Your task to perform on an android device: turn off airplane mode Image 0: 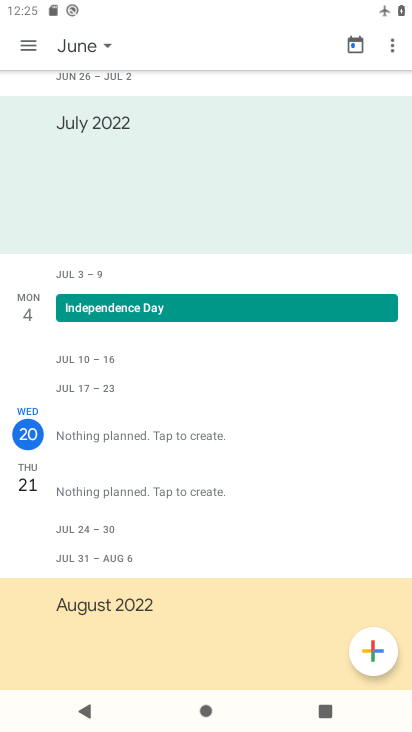
Step 0: press home button
Your task to perform on an android device: turn off airplane mode Image 1: 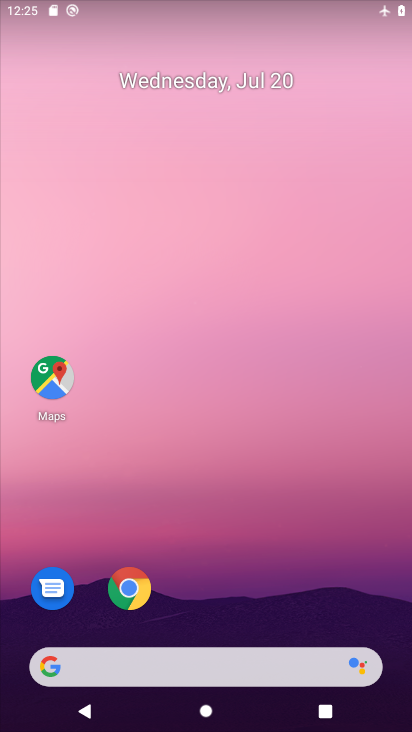
Step 1: drag from (207, 594) to (207, 326)
Your task to perform on an android device: turn off airplane mode Image 2: 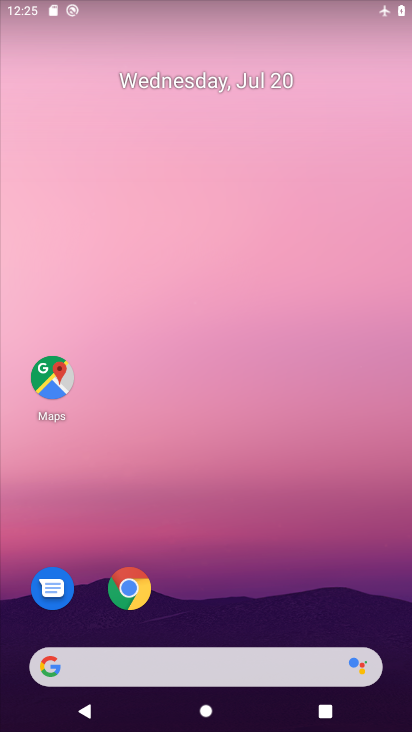
Step 2: drag from (203, 581) to (211, 300)
Your task to perform on an android device: turn off airplane mode Image 3: 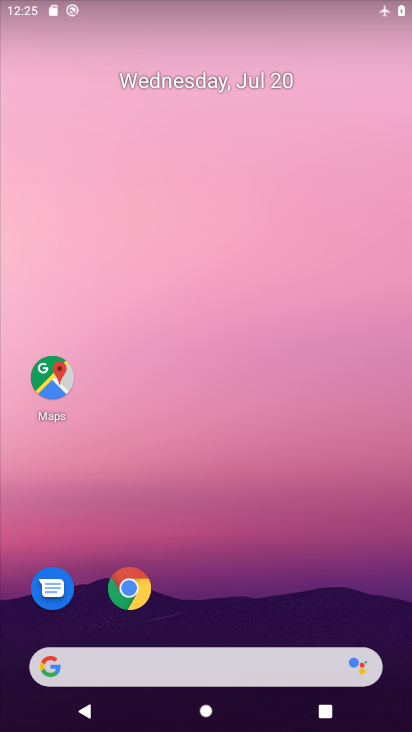
Step 3: drag from (208, 574) to (208, 288)
Your task to perform on an android device: turn off airplane mode Image 4: 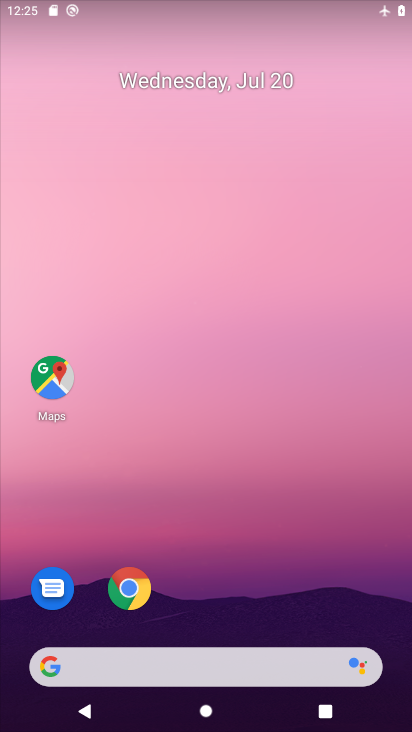
Step 4: drag from (248, 596) to (222, 157)
Your task to perform on an android device: turn off airplane mode Image 5: 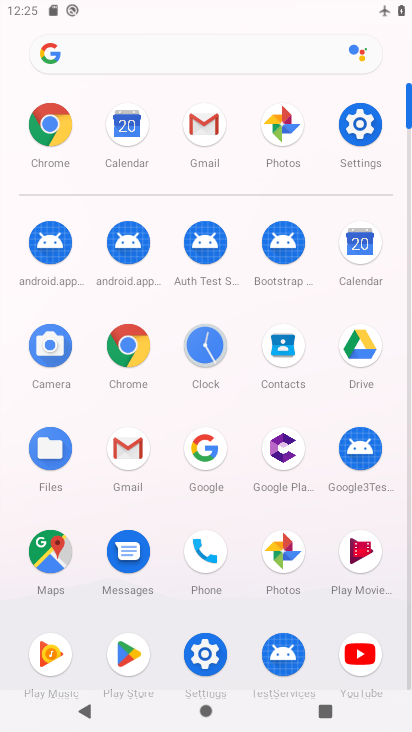
Step 5: click (354, 129)
Your task to perform on an android device: turn off airplane mode Image 6: 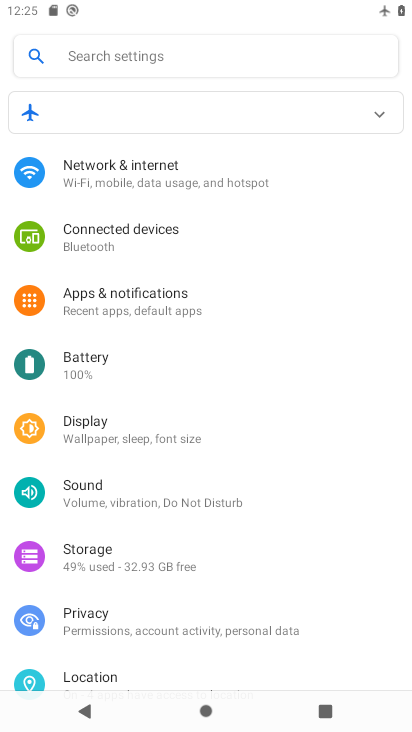
Step 6: click (150, 166)
Your task to perform on an android device: turn off airplane mode Image 7: 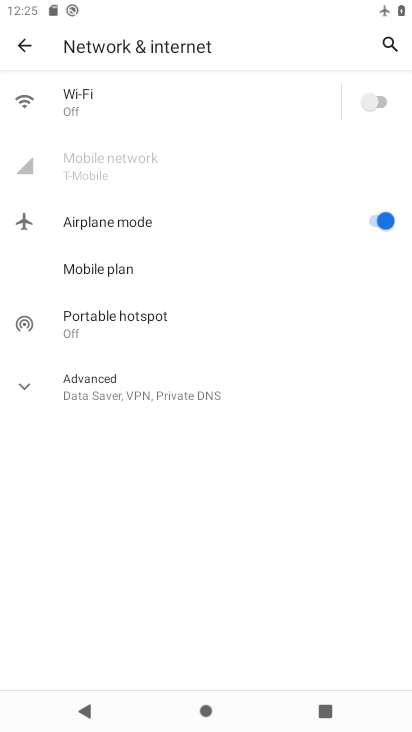
Step 7: click (379, 216)
Your task to perform on an android device: turn off airplane mode Image 8: 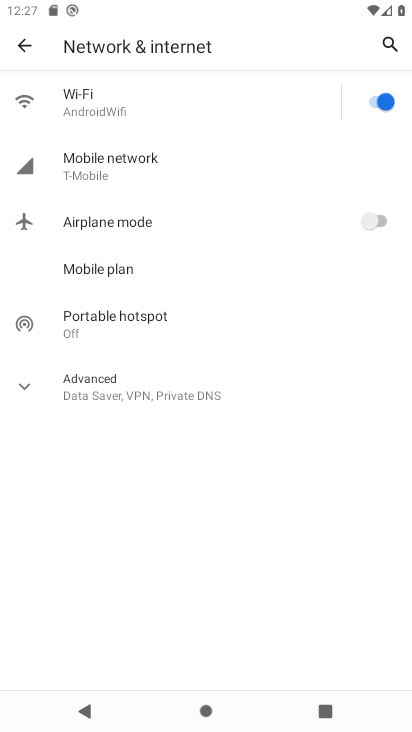
Step 8: task complete